Your task to perform on an android device: set an alarm Image 0: 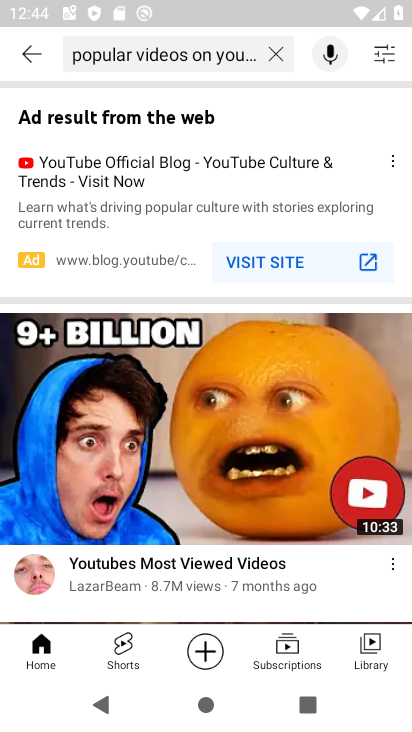
Step 0: press home button
Your task to perform on an android device: set an alarm Image 1: 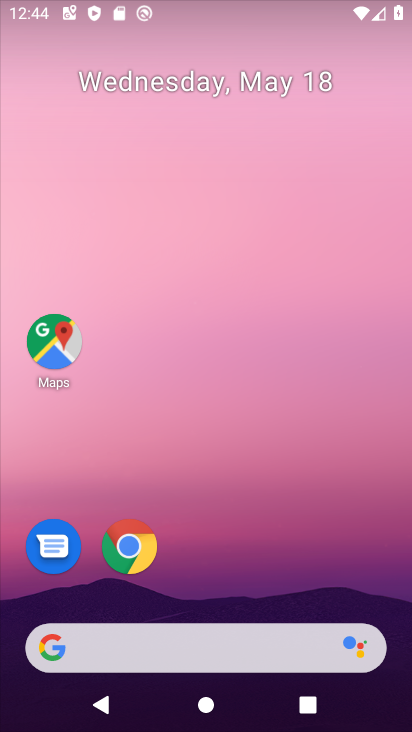
Step 1: drag from (316, 561) to (326, 27)
Your task to perform on an android device: set an alarm Image 2: 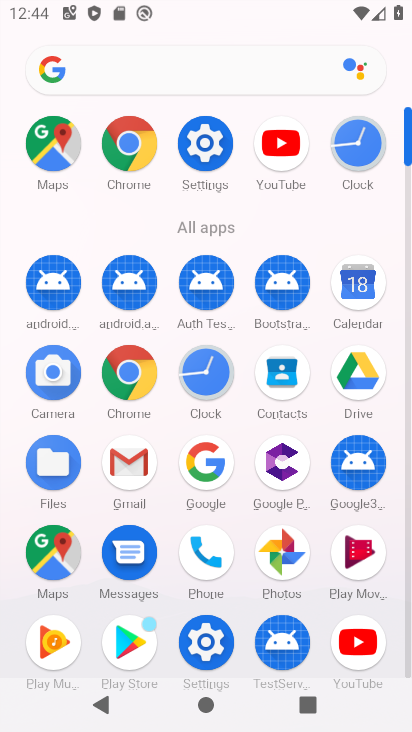
Step 2: click (215, 395)
Your task to perform on an android device: set an alarm Image 3: 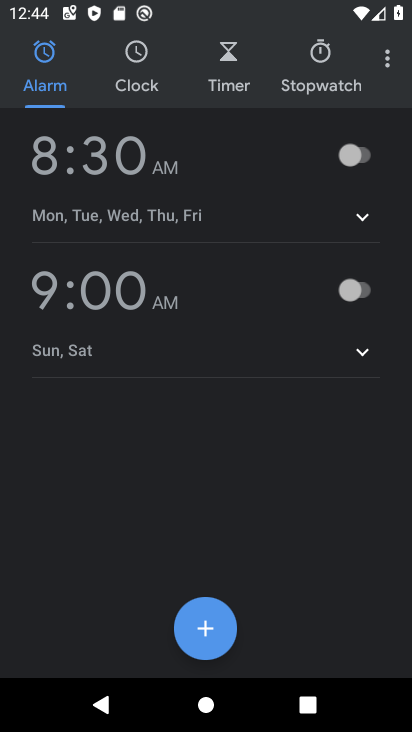
Step 3: click (209, 617)
Your task to perform on an android device: set an alarm Image 4: 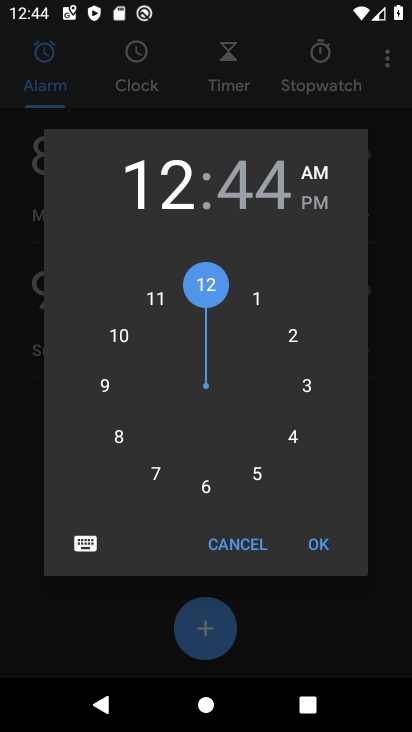
Step 4: click (319, 540)
Your task to perform on an android device: set an alarm Image 5: 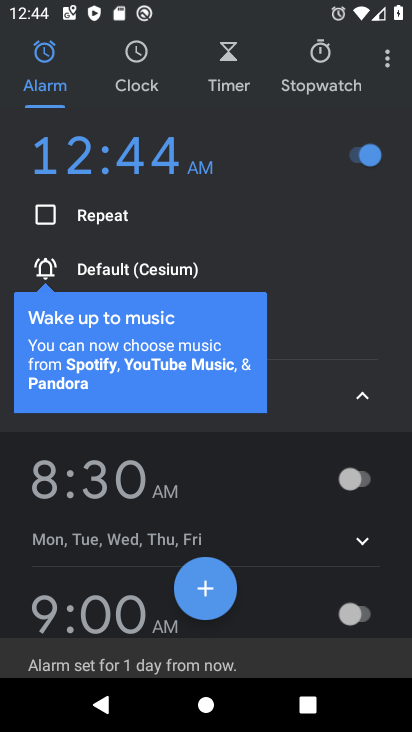
Step 5: task complete